Your task to perform on an android device: What does the iPhone 8 look like? Image 0: 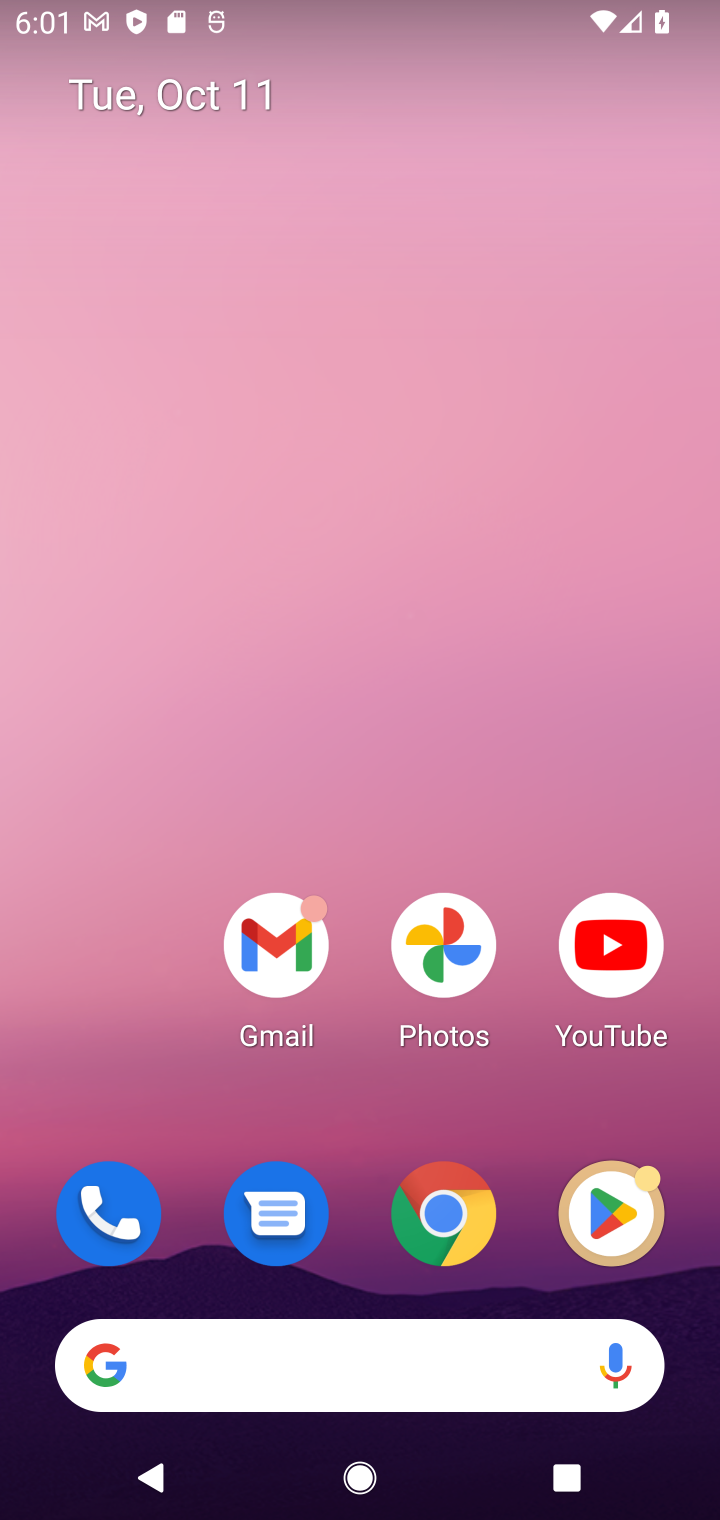
Step 0: drag from (386, 446) to (381, 286)
Your task to perform on an android device: What does the iPhone 8 look like? Image 1: 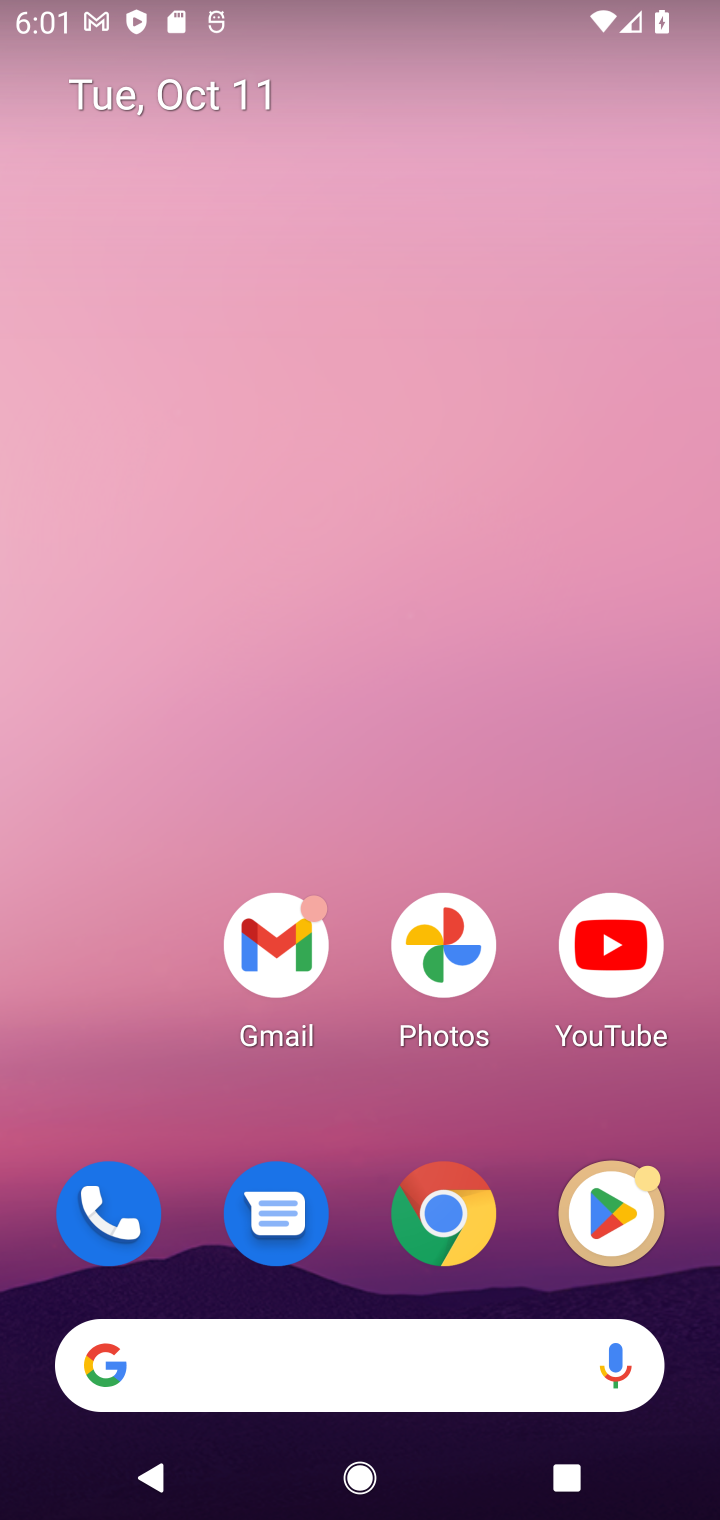
Step 1: drag from (379, 650) to (379, 371)
Your task to perform on an android device: What does the iPhone 8 look like? Image 2: 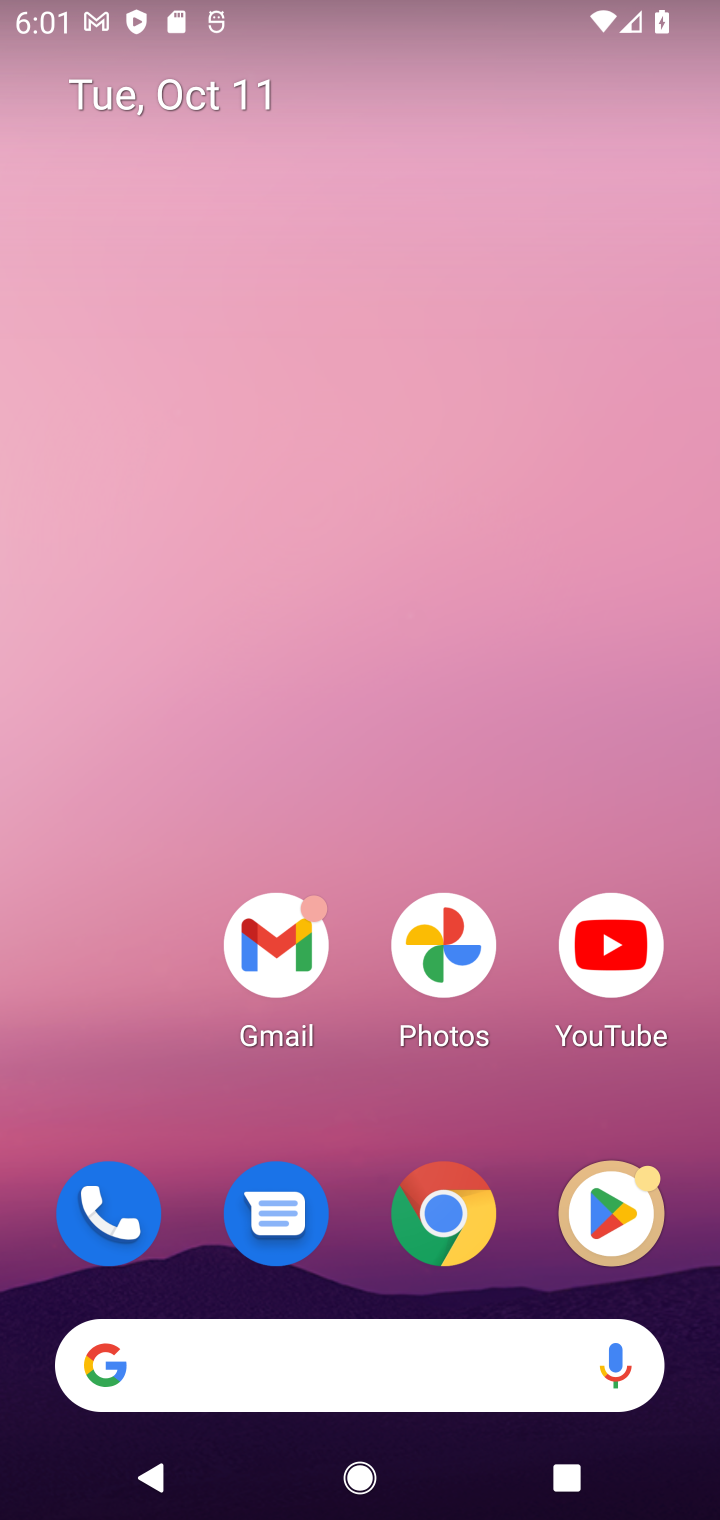
Step 2: drag from (367, 812) to (431, 323)
Your task to perform on an android device: What does the iPhone 8 look like? Image 3: 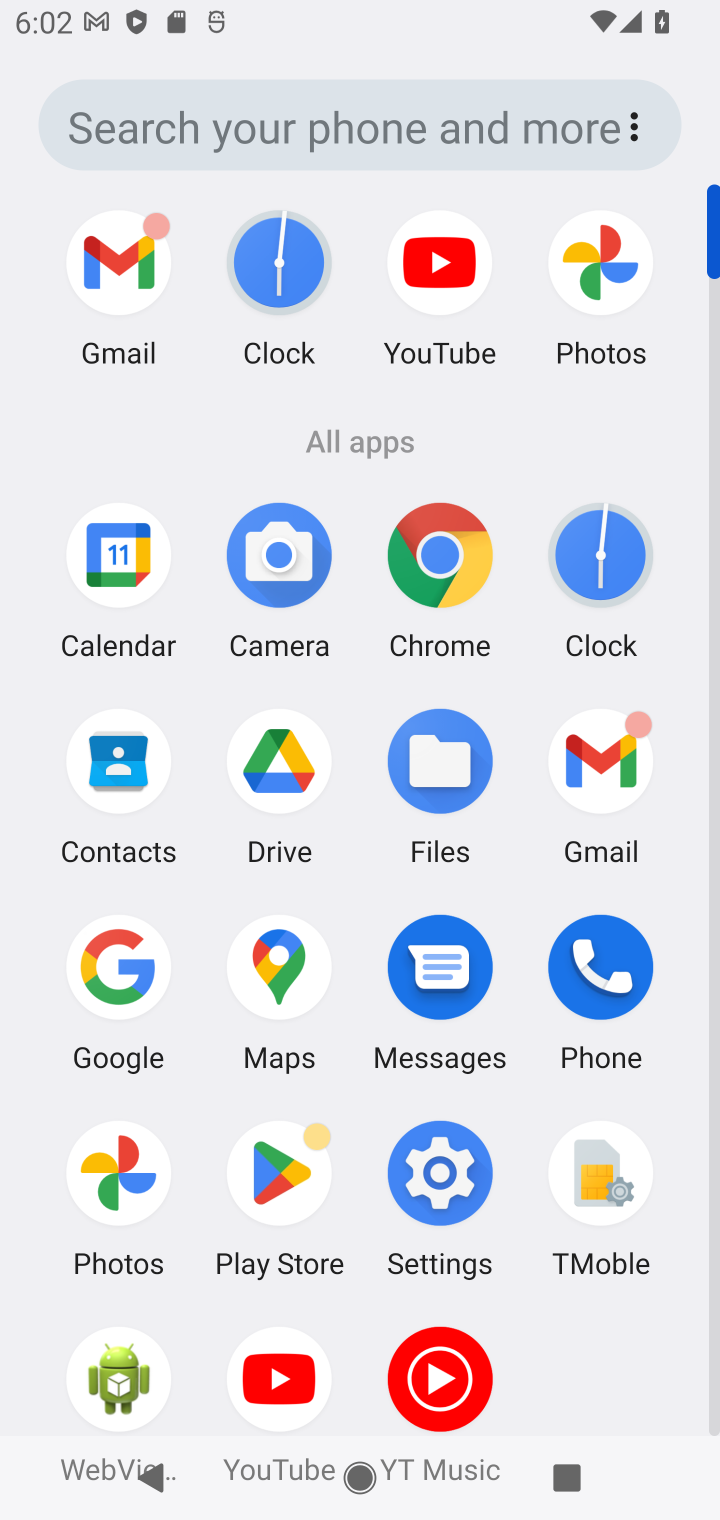
Step 3: click (133, 964)
Your task to perform on an android device: What does the iPhone 8 look like? Image 4: 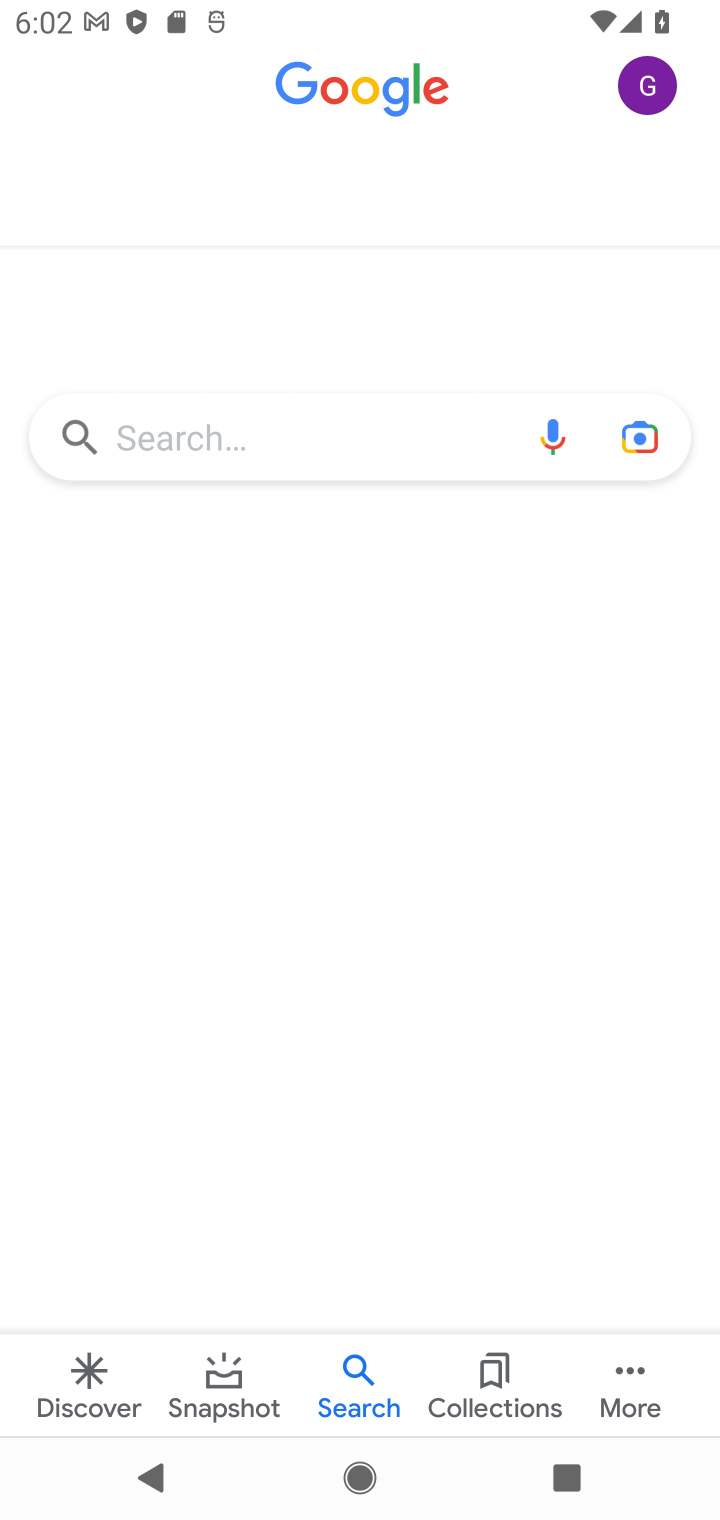
Step 4: click (345, 445)
Your task to perform on an android device: What does the iPhone 8 look like? Image 5: 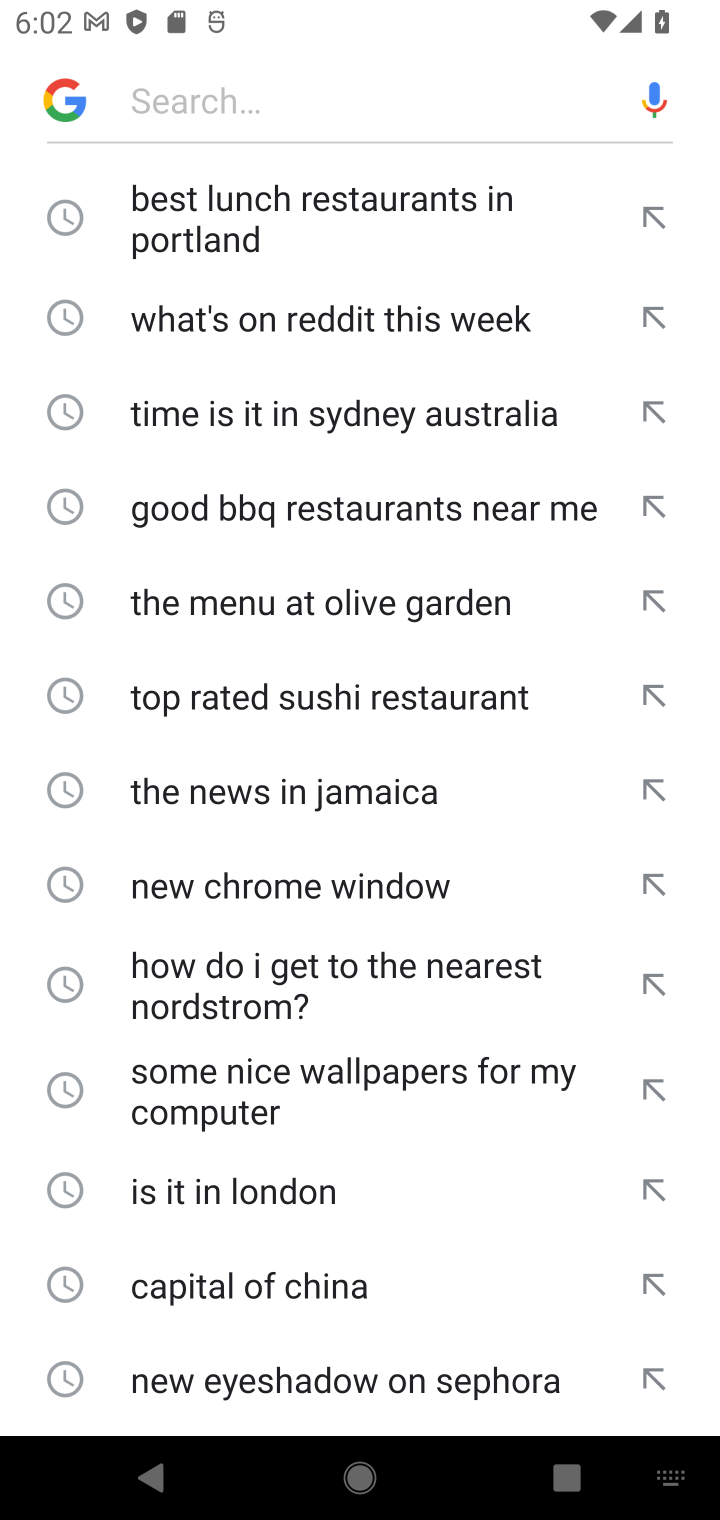
Step 5: click (368, 74)
Your task to perform on an android device: What does the iPhone 8 look like? Image 6: 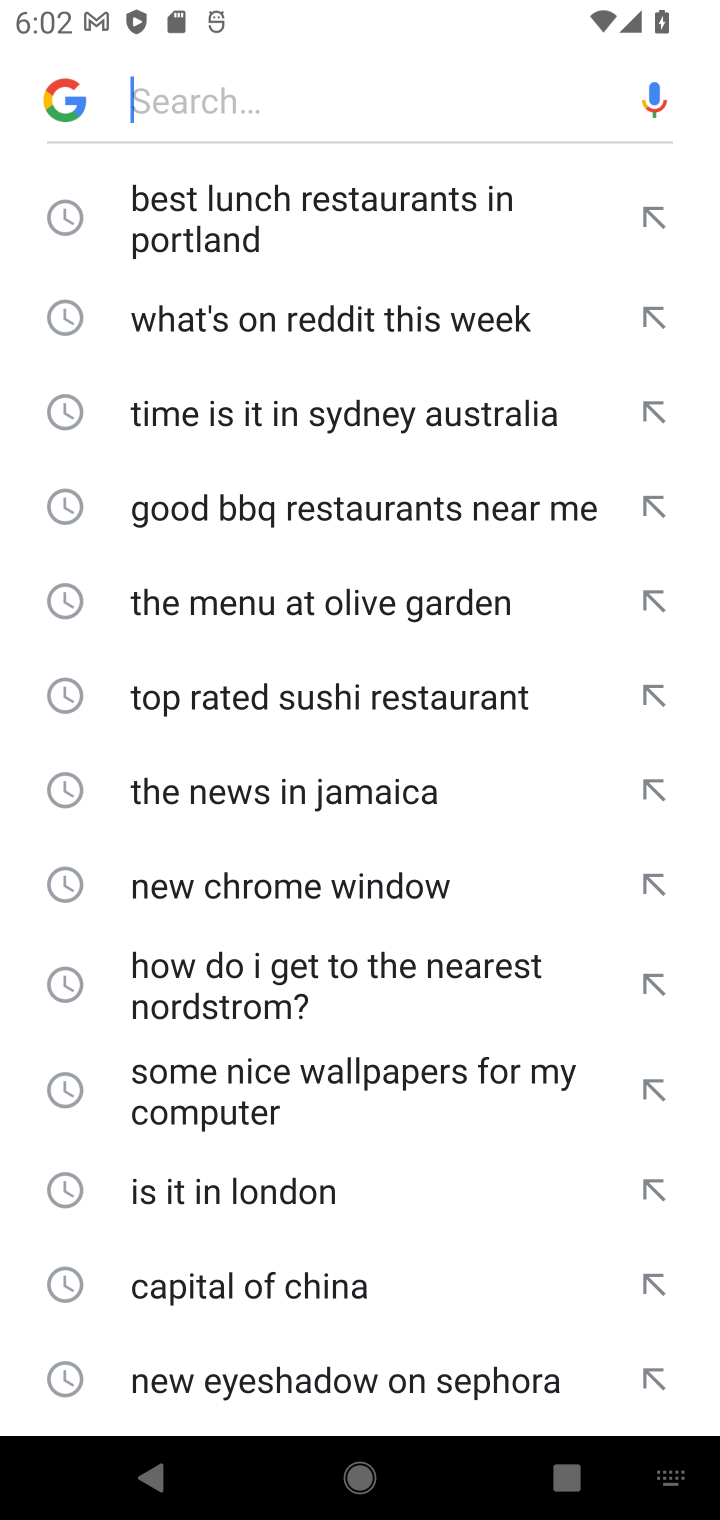
Step 6: type "What does the iPhone 8 look like? "
Your task to perform on an android device: What does the iPhone 8 look like? Image 7: 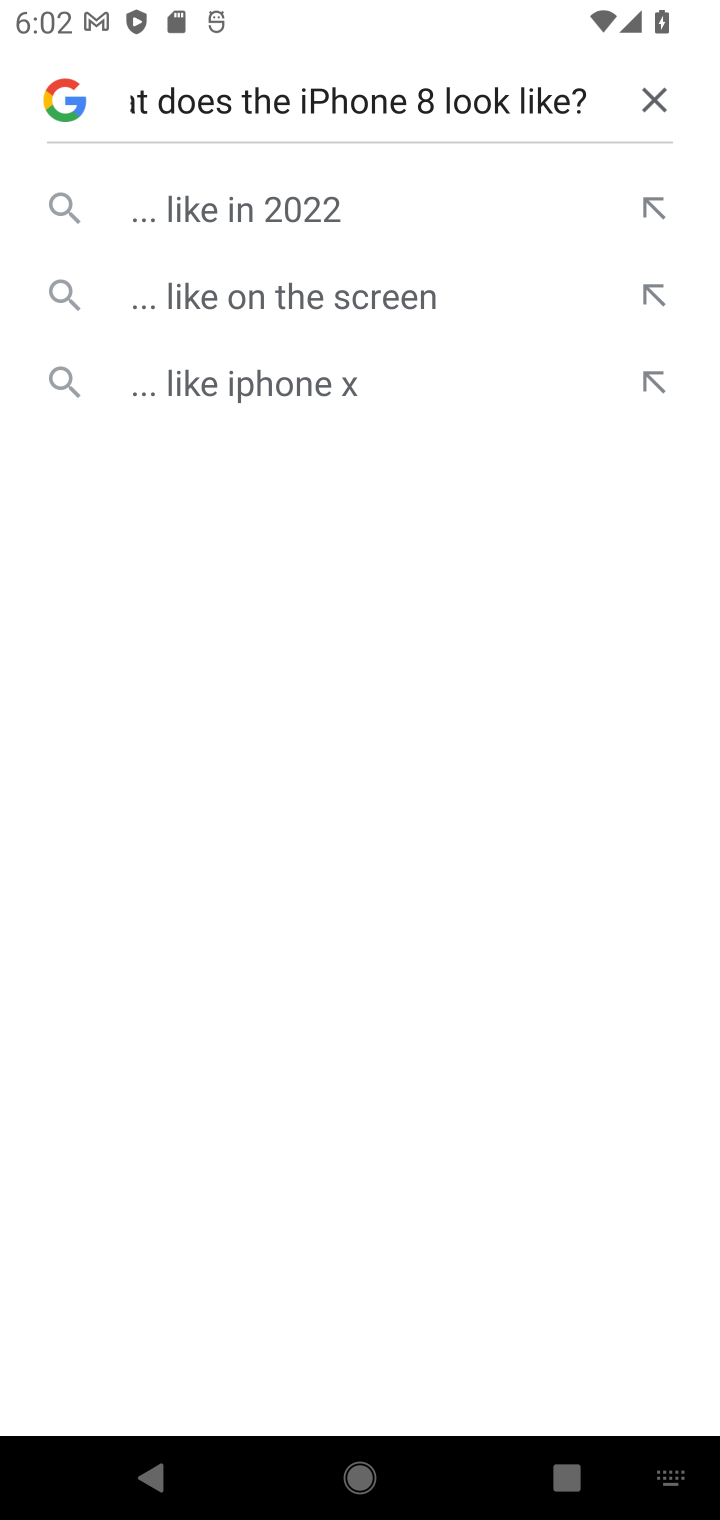
Step 7: click (314, 220)
Your task to perform on an android device: What does the iPhone 8 look like? Image 8: 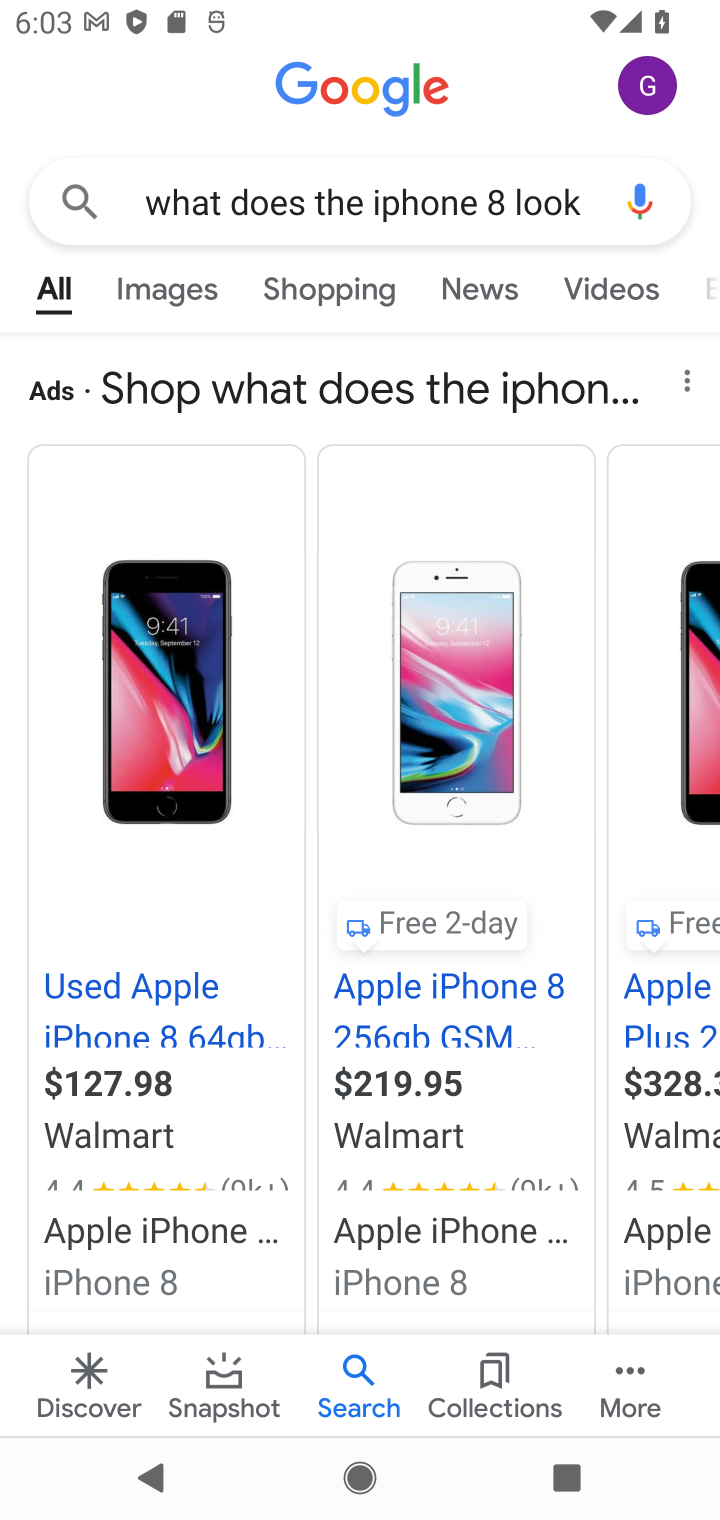
Step 8: task complete